Your task to perform on an android device: change the clock style Image 0: 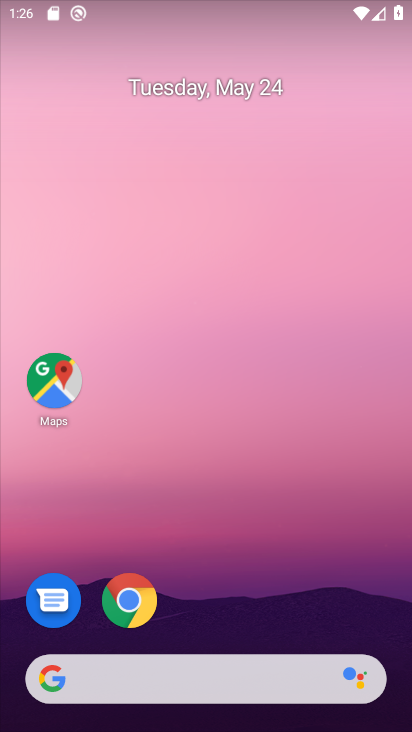
Step 0: drag from (239, 550) to (204, 262)
Your task to perform on an android device: change the clock style Image 1: 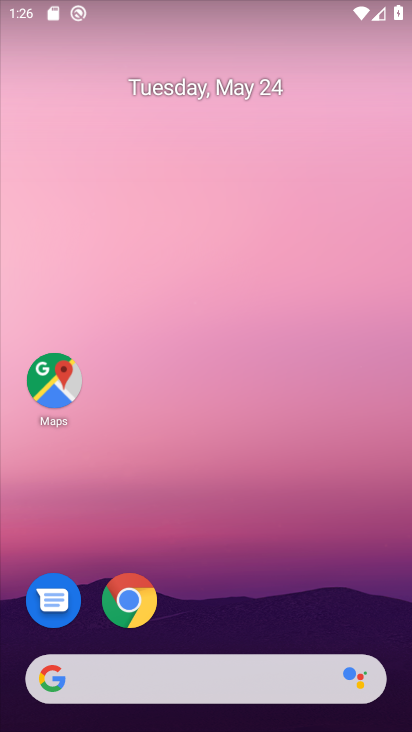
Step 1: drag from (407, 504) to (325, 282)
Your task to perform on an android device: change the clock style Image 2: 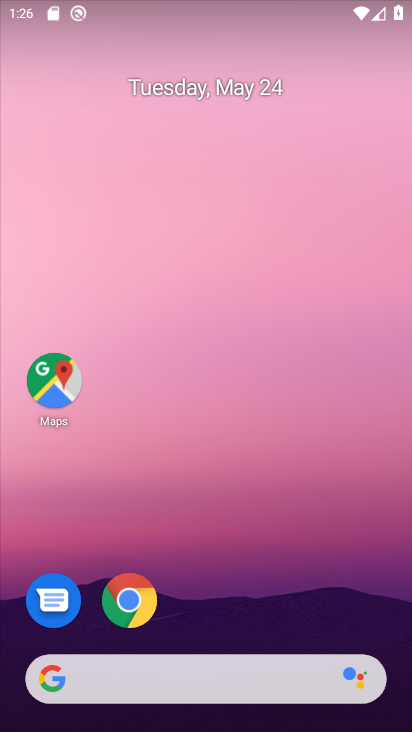
Step 2: drag from (239, 632) to (211, 178)
Your task to perform on an android device: change the clock style Image 3: 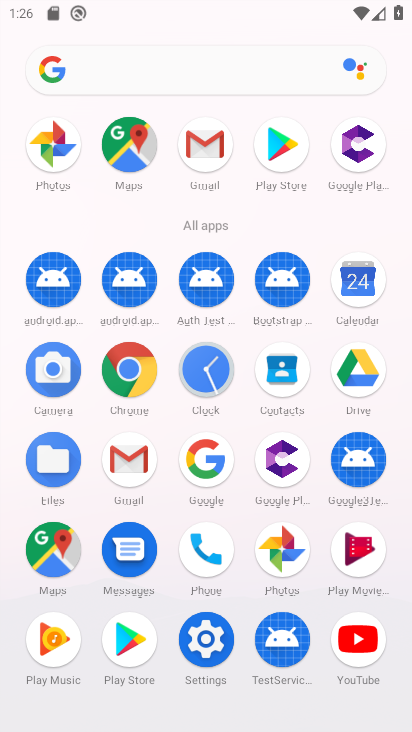
Step 3: click (205, 378)
Your task to perform on an android device: change the clock style Image 4: 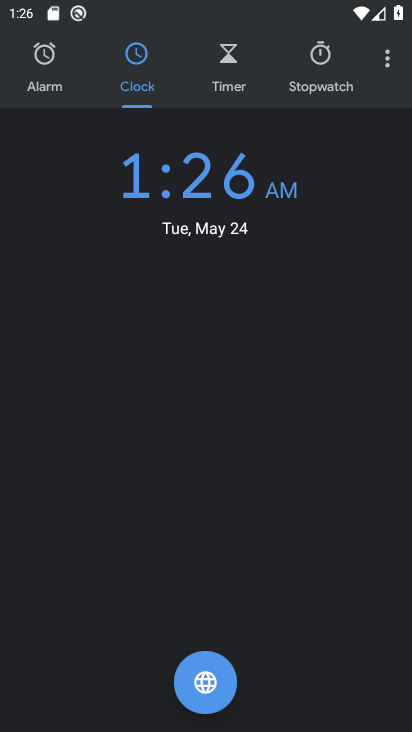
Step 4: click (205, 378)
Your task to perform on an android device: change the clock style Image 5: 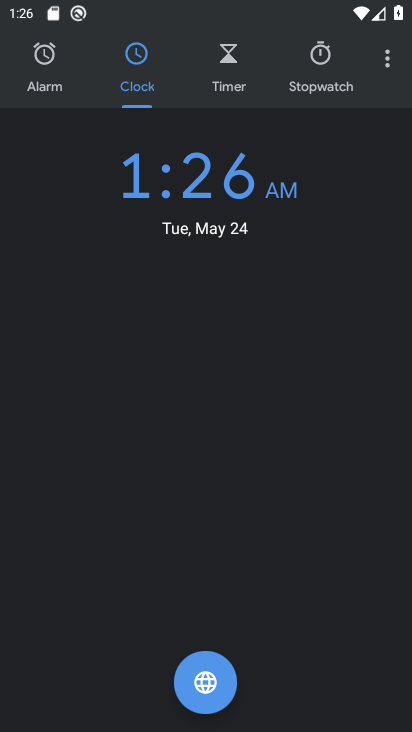
Step 5: click (390, 60)
Your task to perform on an android device: change the clock style Image 6: 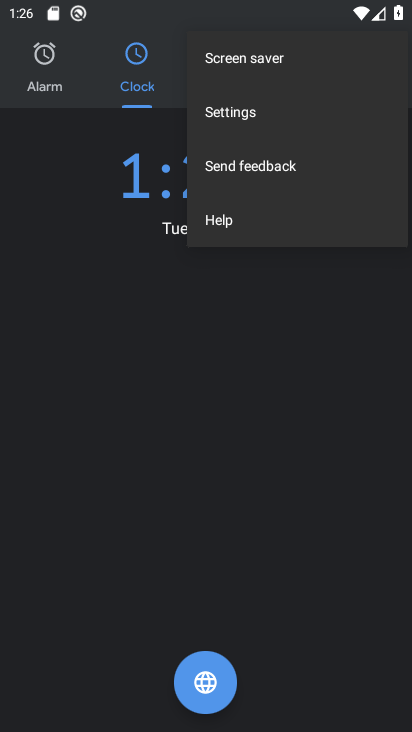
Step 6: click (323, 119)
Your task to perform on an android device: change the clock style Image 7: 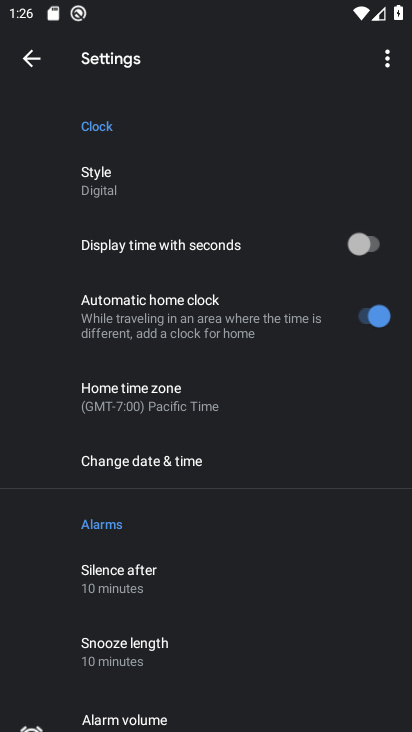
Step 7: click (84, 172)
Your task to perform on an android device: change the clock style Image 8: 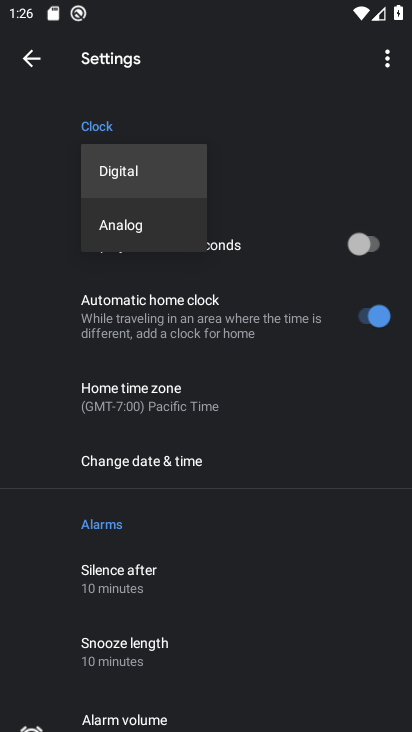
Step 8: click (127, 223)
Your task to perform on an android device: change the clock style Image 9: 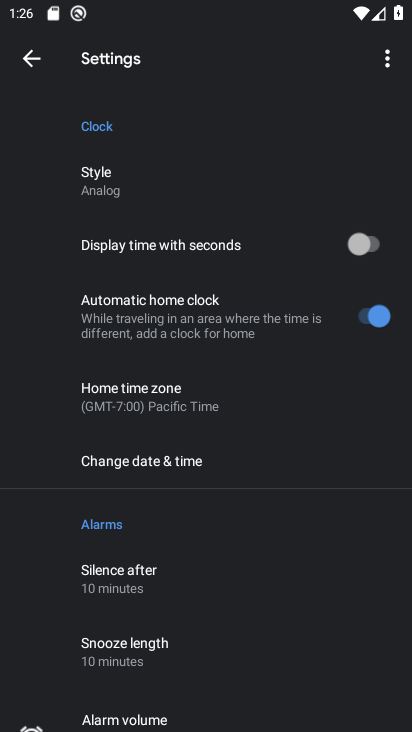
Step 9: task complete